Your task to perform on an android device: Open wifi settings Image 0: 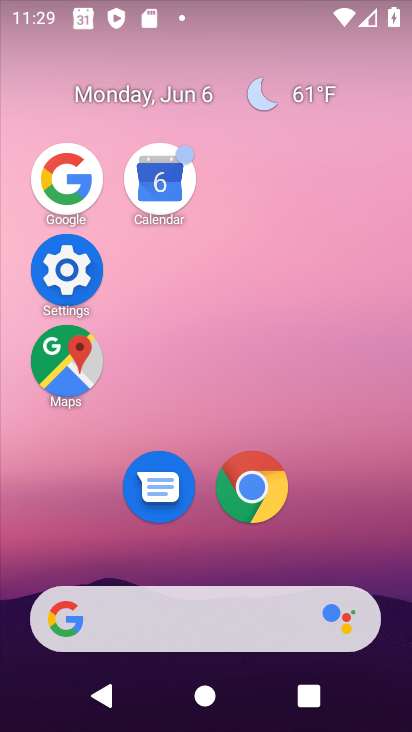
Step 0: click (46, 286)
Your task to perform on an android device: Open wifi settings Image 1: 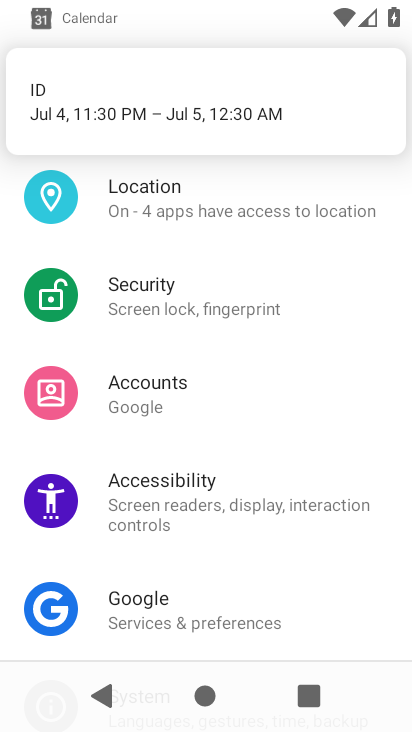
Step 1: drag from (272, 182) to (215, 642)
Your task to perform on an android device: Open wifi settings Image 2: 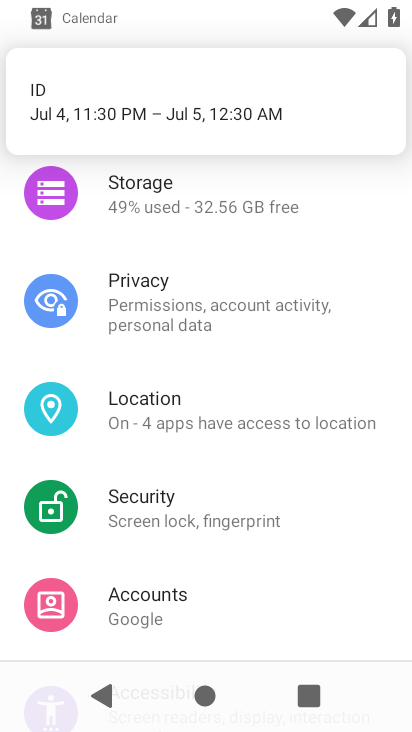
Step 2: drag from (271, 228) to (223, 542)
Your task to perform on an android device: Open wifi settings Image 3: 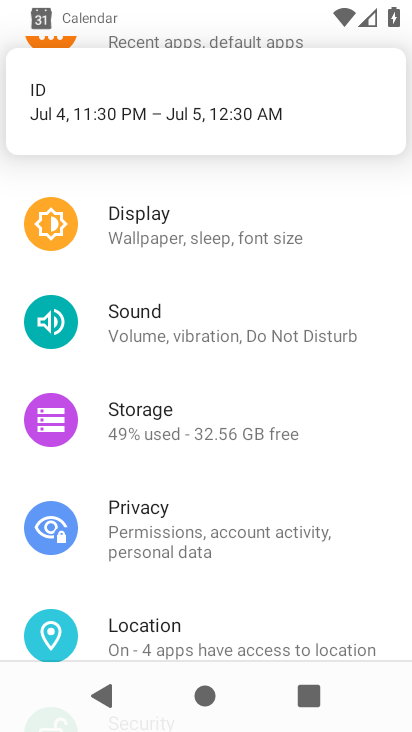
Step 3: drag from (284, 233) to (250, 607)
Your task to perform on an android device: Open wifi settings Image 4: 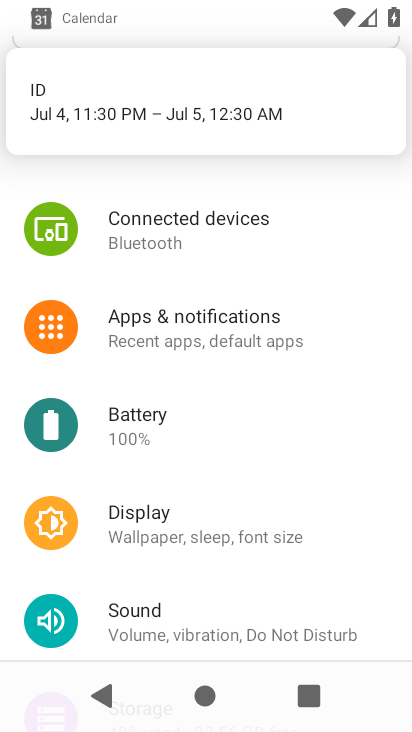
Step 4: drag from (270, 260) to (269, 633)
Your task to perform on an android device: Open wifi settings Image 5: 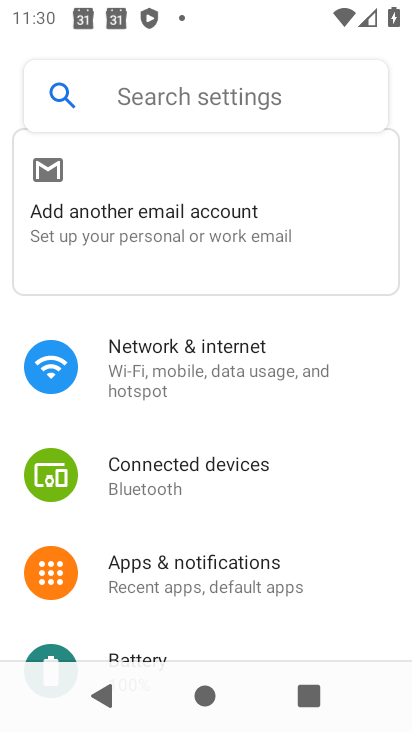
Step 5: click (215, 348)
Your task to perform on an android device: Open wifi settings Image 6: 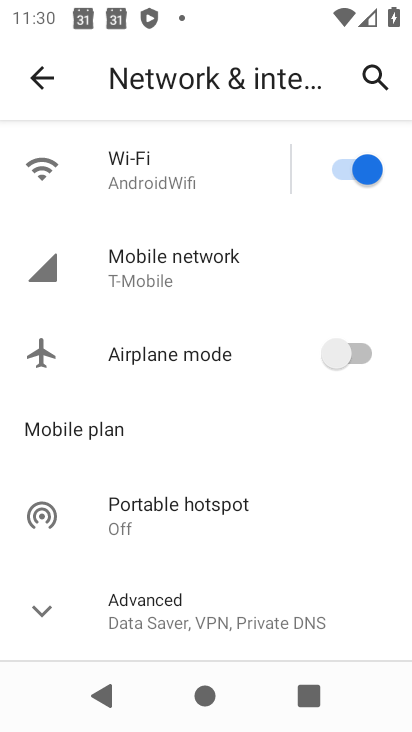
Step 6: click (190, 179)
Your task to perform on an android device: Open wifi settings Image 7: 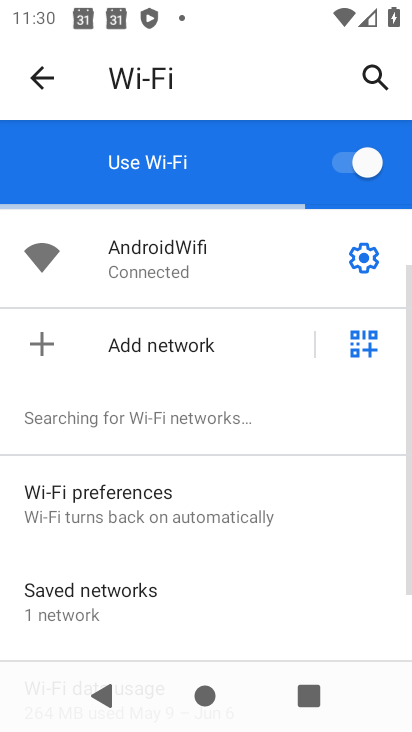
Step 7: click (355, 261)
Your task to perform on an android device: Open wifi settings Image 8: 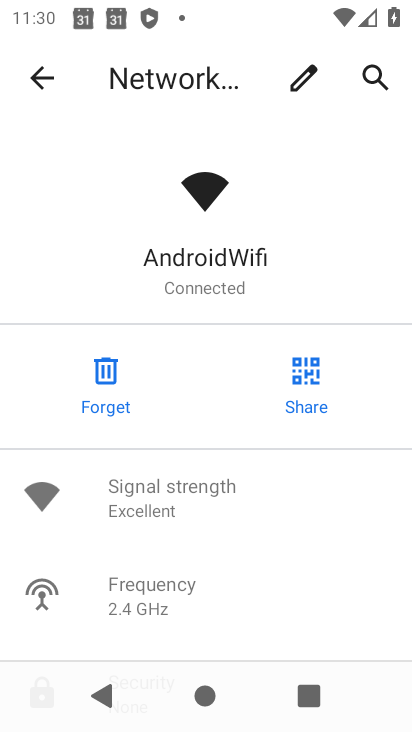
Step 8: task complete